Your task to perform on an android device: toggle javascript in the chrome app Image 0: 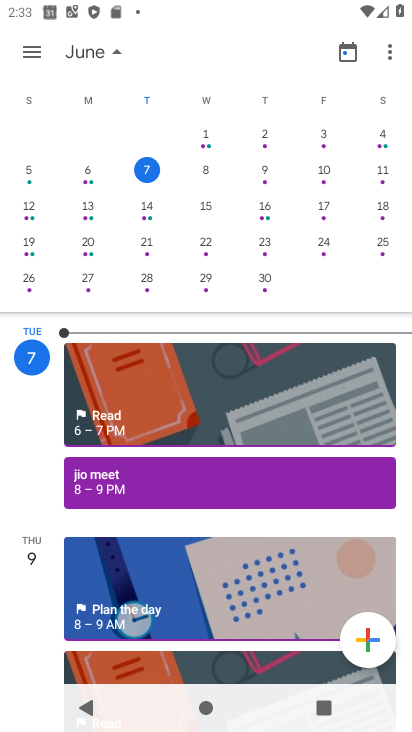
Step 0: press home button
Your task to perform on an android device: toggle javascript in the chrome app Image 1: 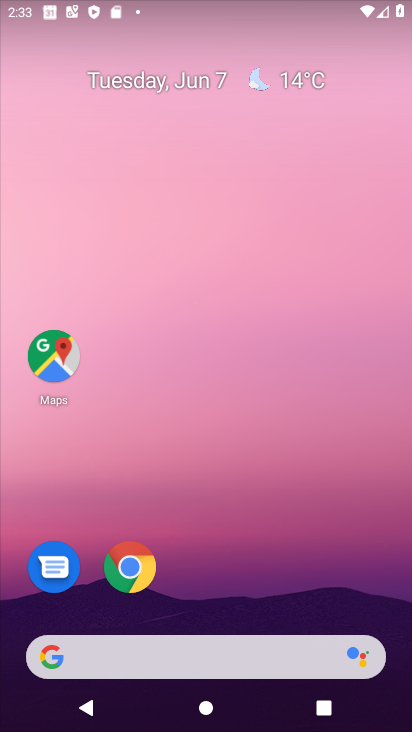
Step 1: drag from (195, 552) to (197, 131)
Your task to perform on an android device: toggle javascript in the chrome app Image 2: 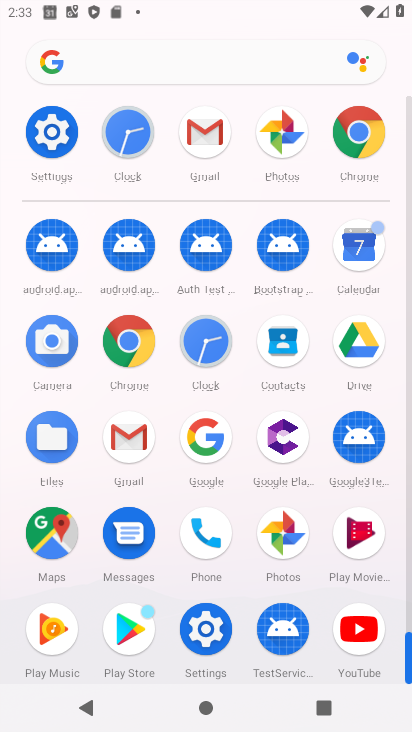
Step 2: click (355, 142)
Your task to perform on an android device: toggle javascript in the chrome app Image 3: 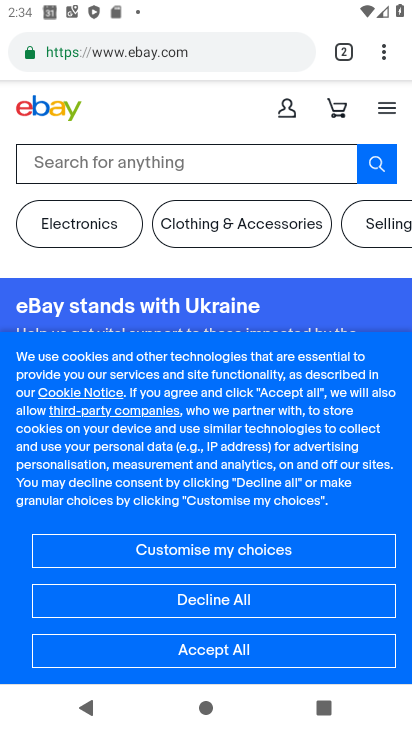
Step 3: click (381, 41)
Your task to perform on an android device: toggle javascript in the chrome app Image 4: 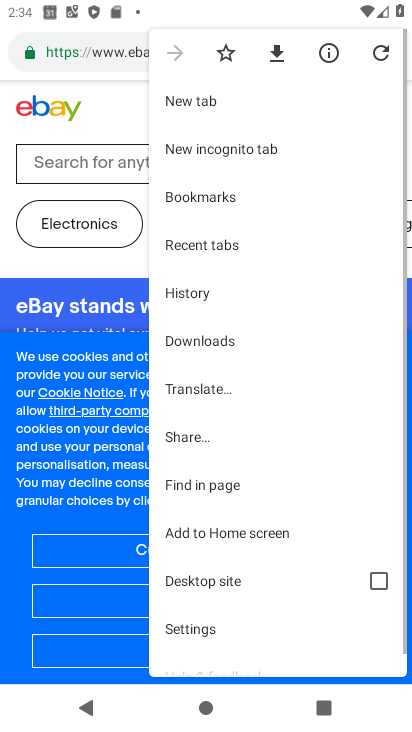
Step 4: drag from (227, 605) to (258, 331)
Your task to perform on an android device: toggle javascript in the chrome app Image 5: 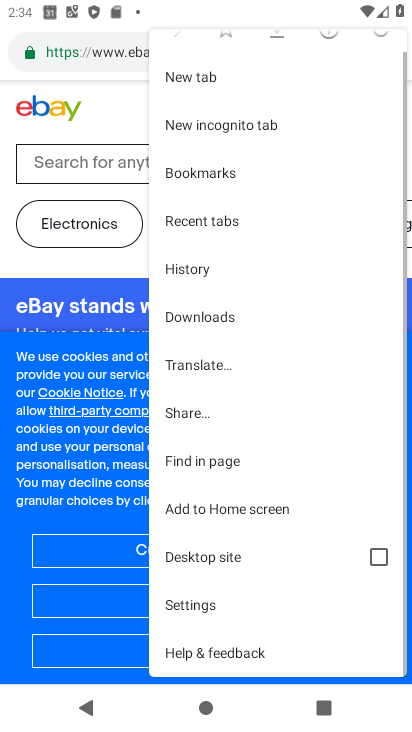
Step 5: click (208, 597)
Your task to perform on an android device: toggle javascript in the chrome app Image 6: 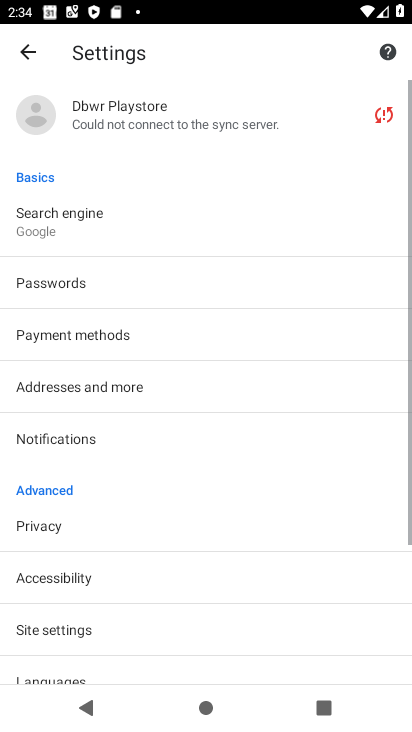
Step 6: drag from (209, 573) to (185, 335)
Your task to perform on an android device: toggle javascript in the chrome app Image 7: 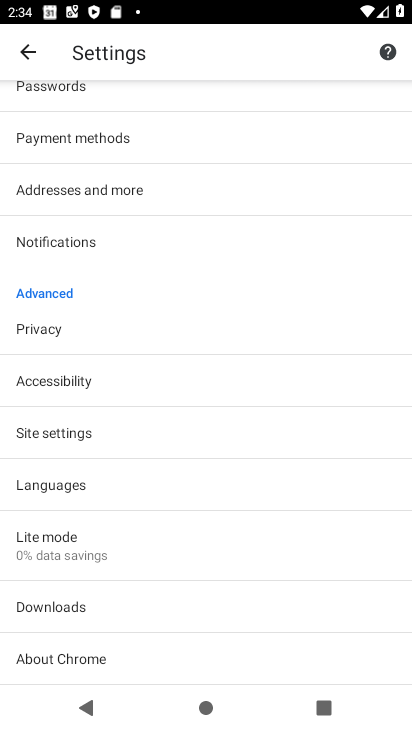
Step 7: click (77, 439)
Your task to perform on an android device: toggle javascript in the chrome app Image 8: 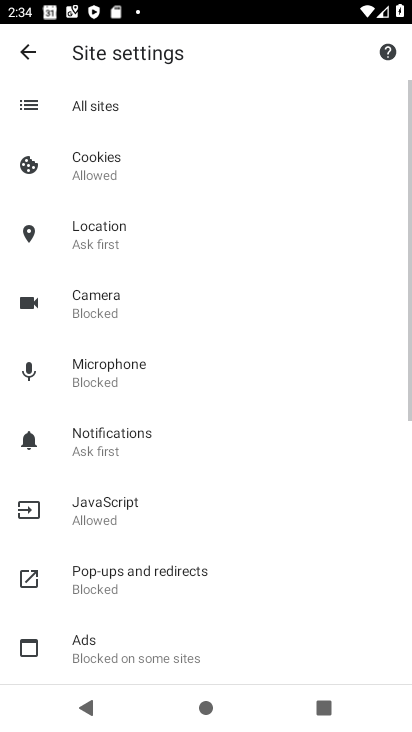
Step 8: click (119, 516)
Your task to perform on an android device: toggle javascript in the chrome app Image 9: 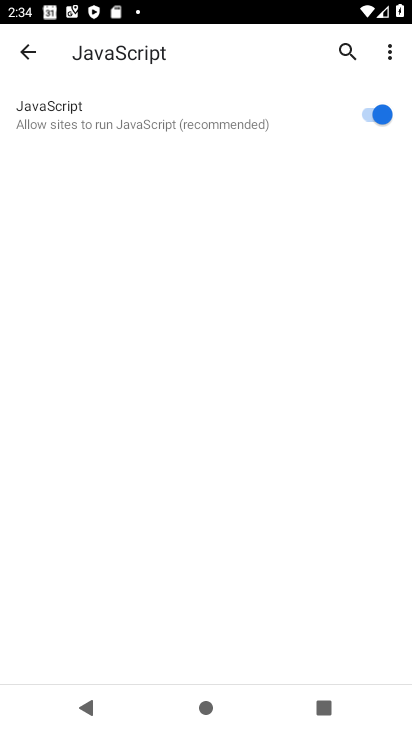
Step 9: click (352, 109)
Your task to perform on an android device: toggle javascript in the chrome app Image 10: 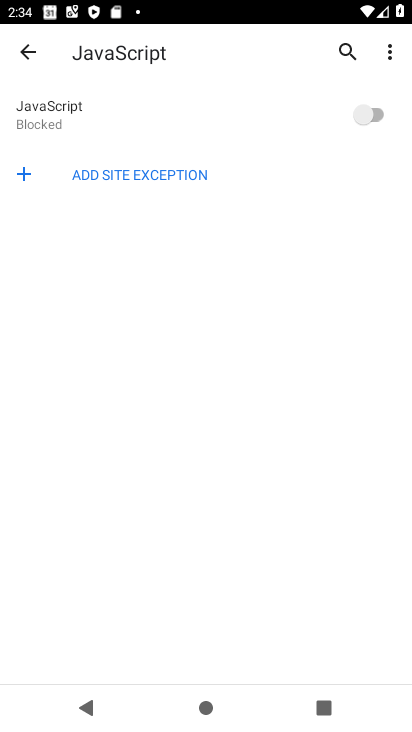
Step 10: task complete